Your task to perform on an android device: all mails in gmail Image 0: 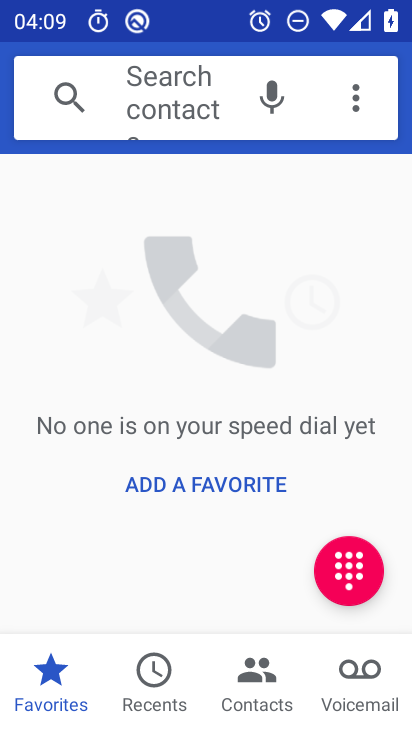
Step 0: press home button
Your task to perform on an android device: all mails in gmail Image 1: 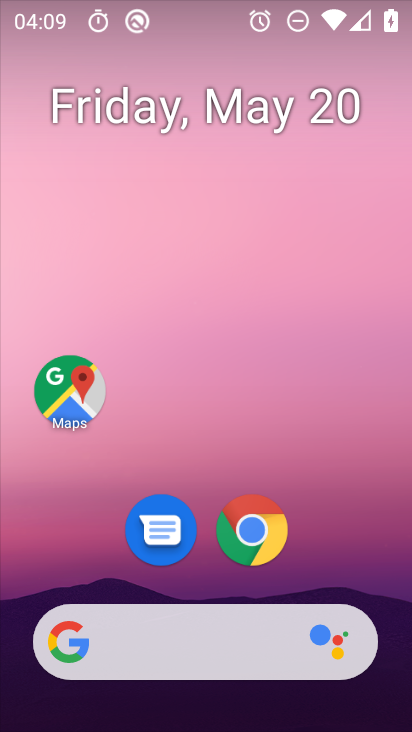
Step 1: click (363, 237)
Your task to perform on an android device: all mails in gmail Image 2: 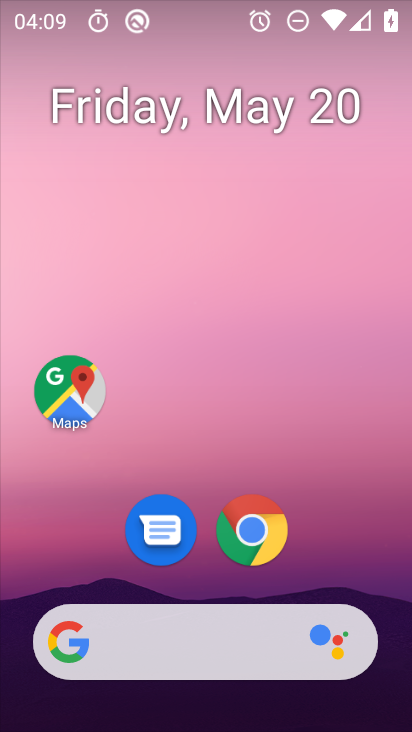
Step 2: drag from (391, 644) to (368, 290)
Your task to perform on an android device: all mails in gmail Image 3: 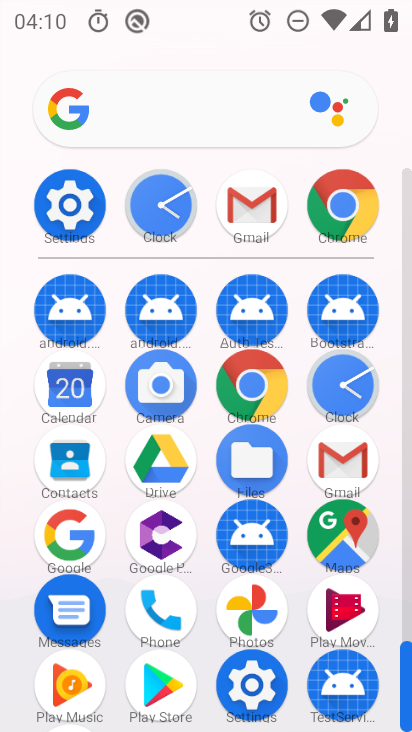
Step 3: click (334, 471)
Your task to perform on an android device: all mails in gmail Image 4: 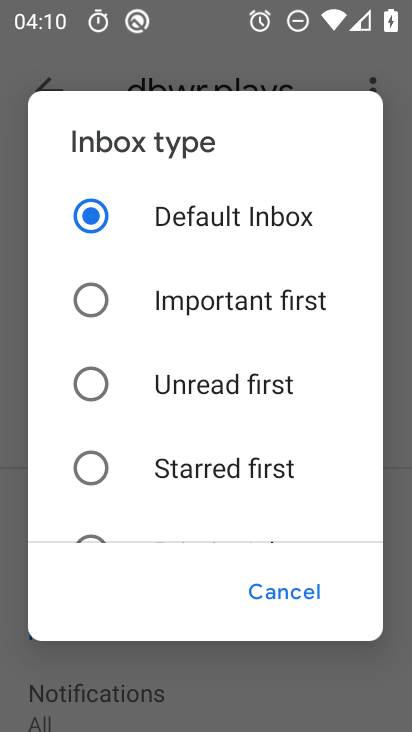
Step 4: drag from (128, 505) to (123, 252)
Your task to perform on an android device: all mails in gmail Image 5: 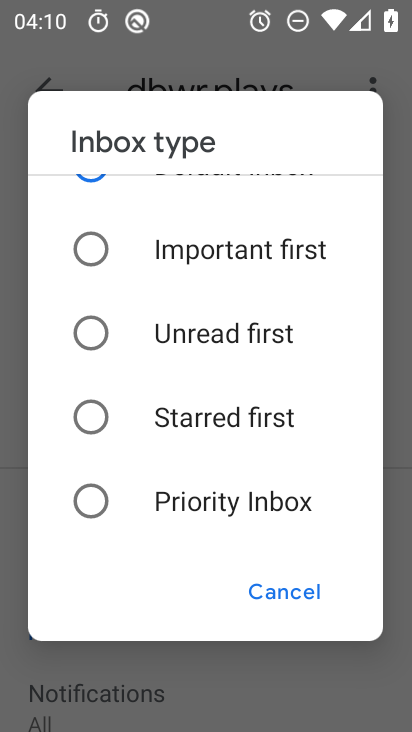
Step 5: press home button
Your task to perform on an android device: all mails in gmail Image 6: 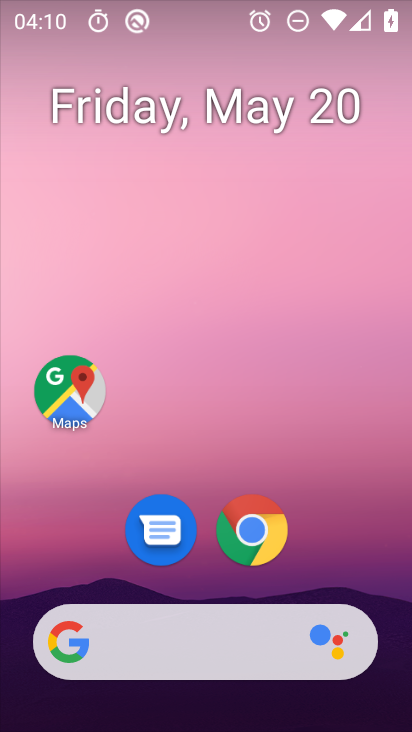
Step 6: drag from (387, 624) to (351, 378)
Your task to perform on an android device: all mails in gmail Image 7: 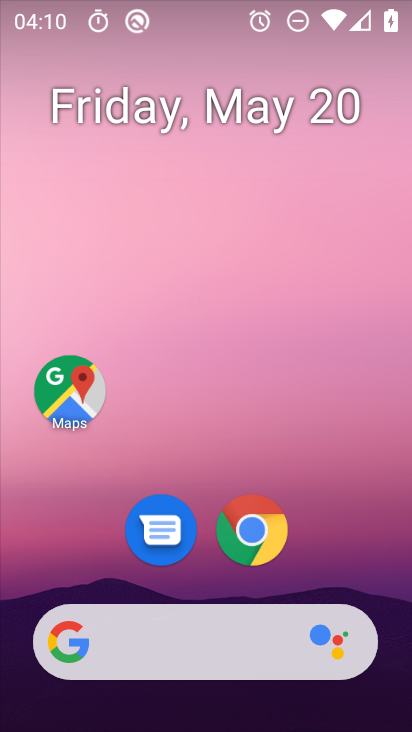
Step 7: drag from (395, 673) to (363, 272)
Your task to perform on an android device: all mails in gmail Image 8: 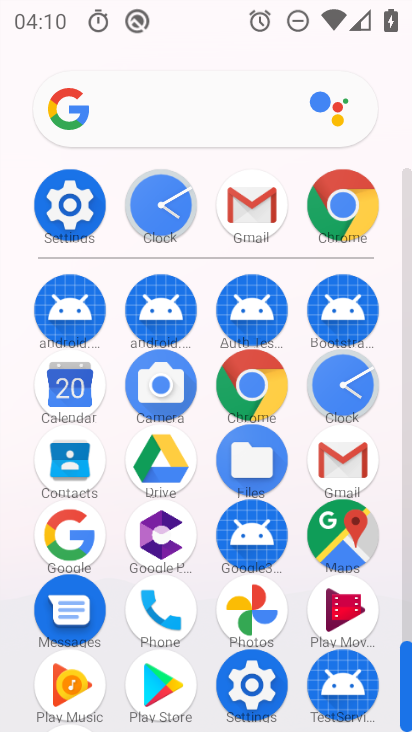
Step 8: click (350, 459)
Your task to perform on an android device: all mails in gmail Image 9: 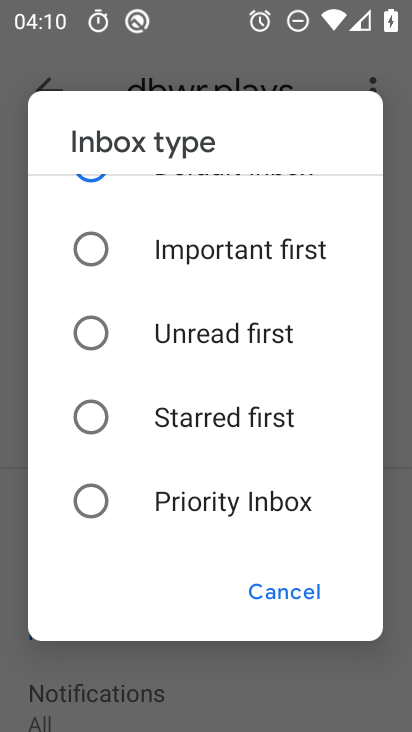
Step 9: press back button
Your task to perform on an android device: all mails in gmail Image 10: 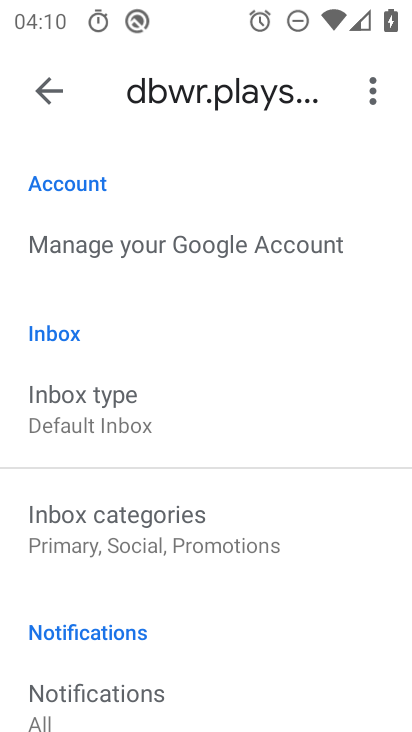
Step 10: click (56, 91)
Your task to perform on an android device: all mails in gmail Image 11: 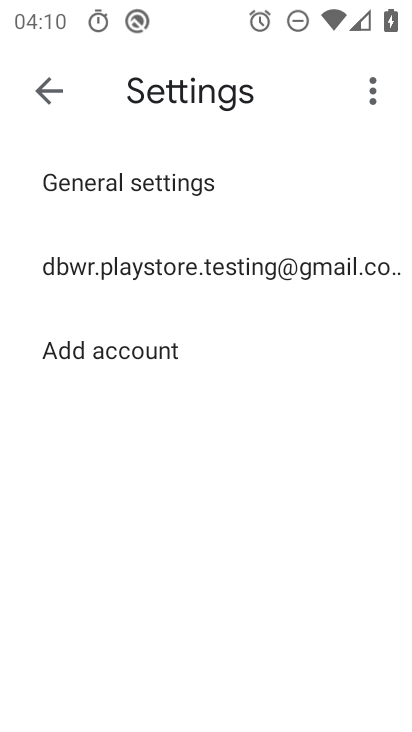
Step 11: click (55, 89)
Your task to perform on an android device: all mails in gmail Image 12: 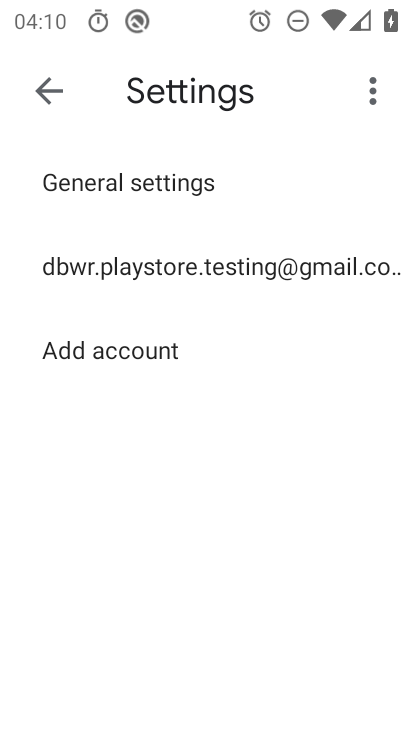
Step 12: click (39, 90)
Your task to perform on an android device: all mails in gmail Image 13: 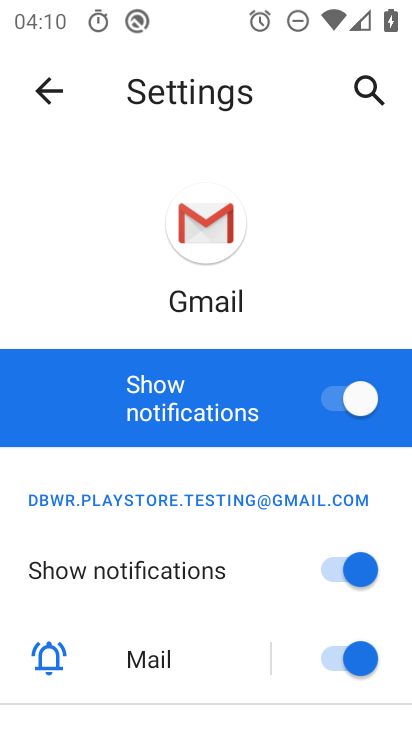
Step 13: drag from (210, 665) to (217, 327)
Your task to perform on an android device: all mails in gmail Image 14: 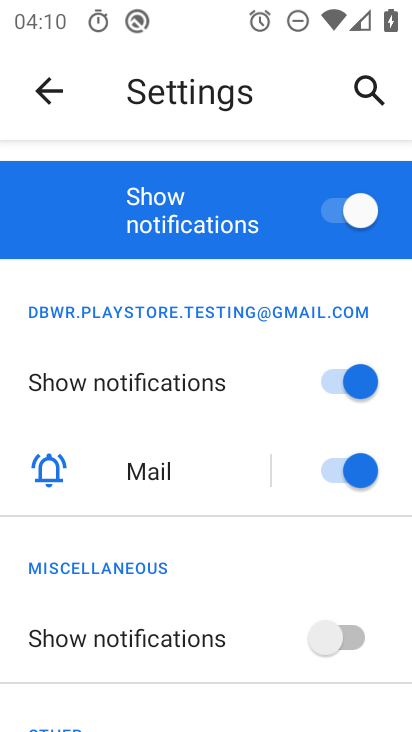
Step 14: drag from (231, 635) to (230, 383)
Your task to perform on an android device: all mails in gmail Image 15: 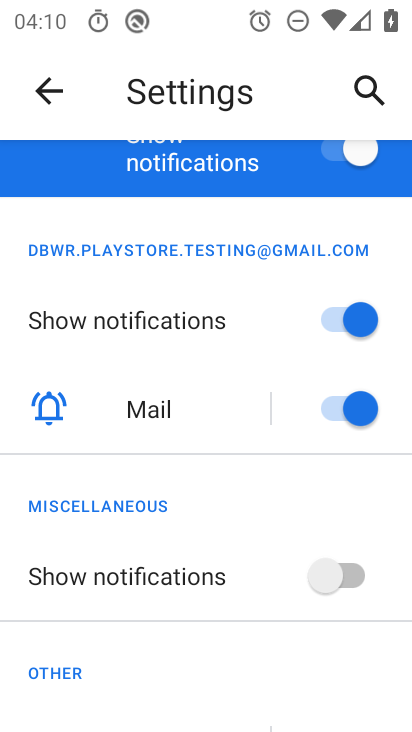
Step 15: drag from (180, 693) to (179, 417)
Your task to perform on an android device: all mails in gmail Image 16: 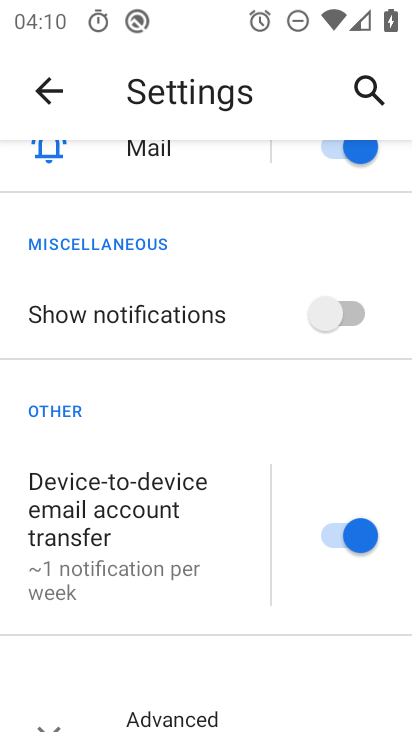
Step 16: drag from (200, 661) to (178, 435)
Your task to perform on an android device: all mails in gmail Image 17: 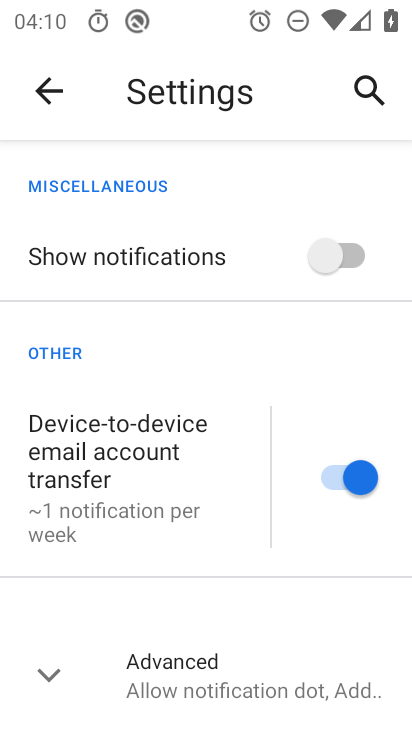
Step 17: drag from (194, 638) to (206, 340)
Your task to perform on an android device: all mails in gmail Image 18: 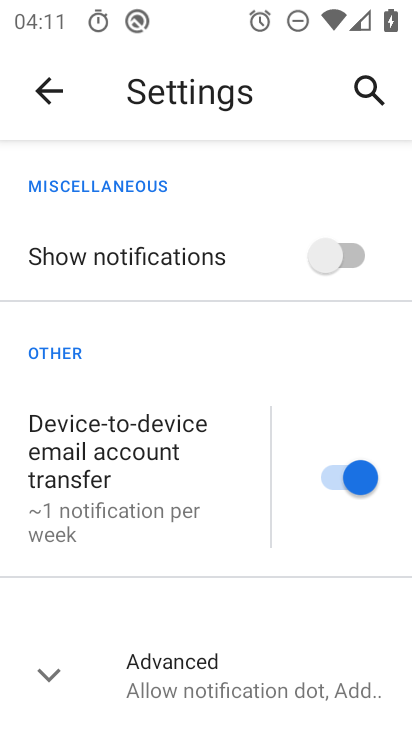
Step 18: click (41, 96)
Your task to perform on an android device: all mails in gmail Image 19: 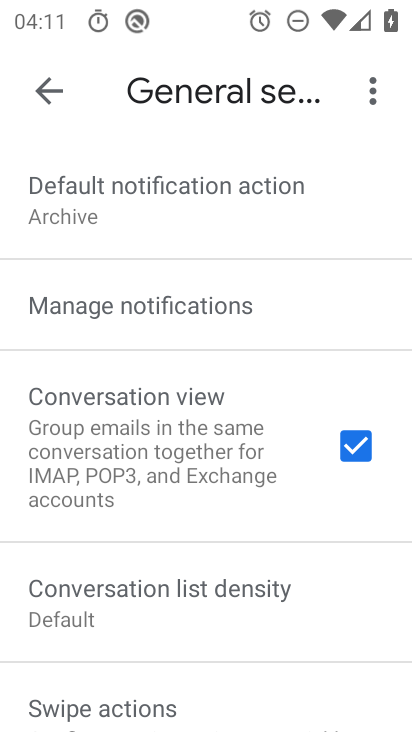
Step 19: drag from (207, 717) to (204, 374)
Your task to perform on an android device: all mails in gmail Image 20: 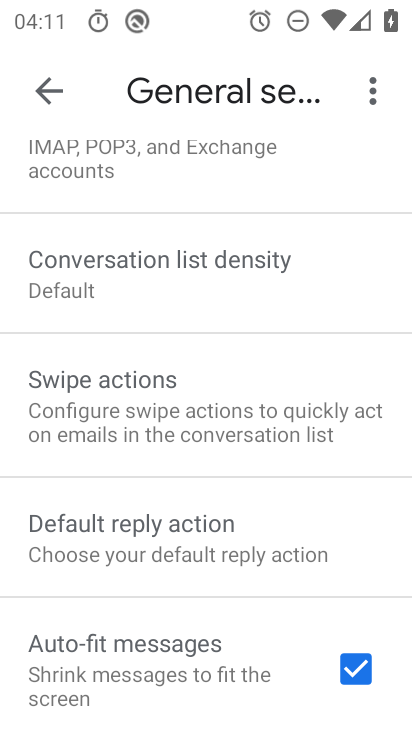
Step 20: click (53, 81)
Your task to perform on an android device: all mails in gmail Image 21: 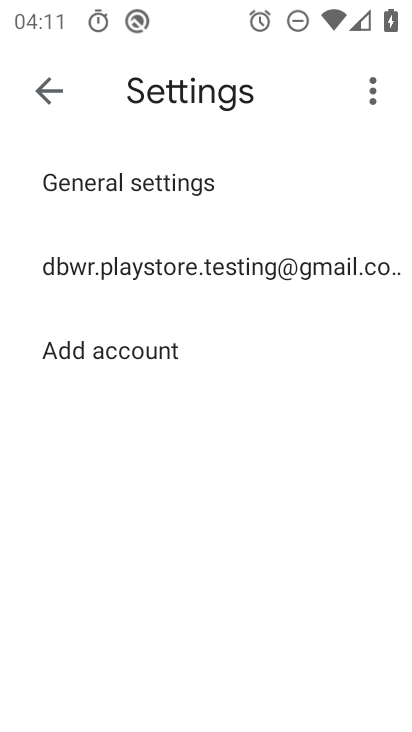
Step 21: click (51, 86)
Your task to perform on an android device: all mails in gmail Image 22: 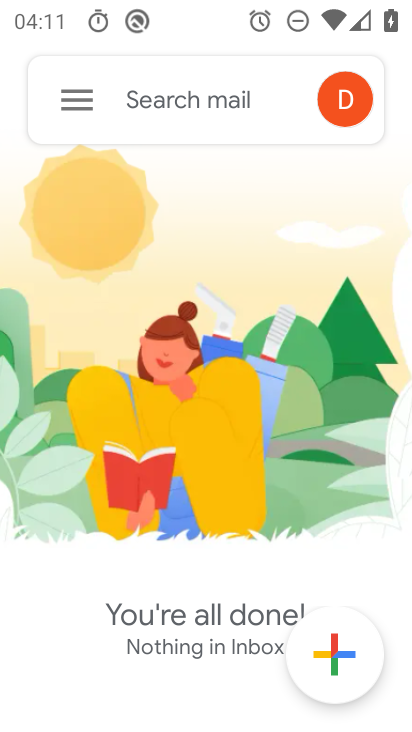
Step 22: click (72, 99)
Your task to perform on an android device: all mails in gmail Image 23: 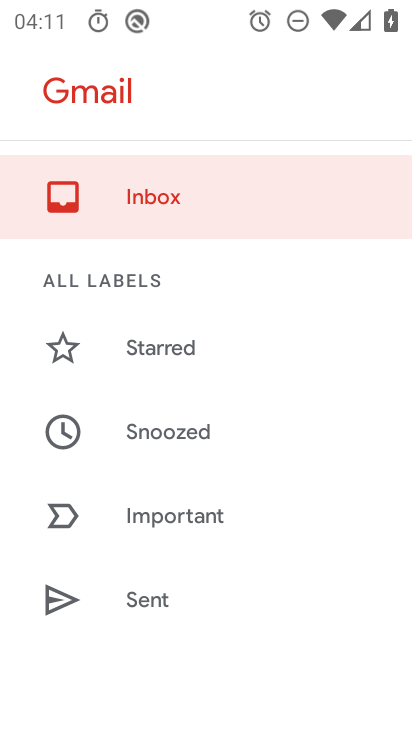
Step 23: drag from (256, 628) to (246, 220)
Your task to perform on an android device: all mails in gmail Image 24: 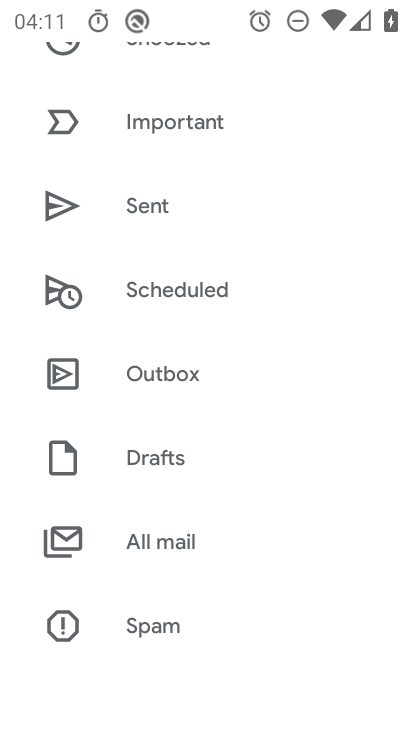
Step 24: click (145, 544)
Your task to perform on an android device: all mails in gmail Image 25: 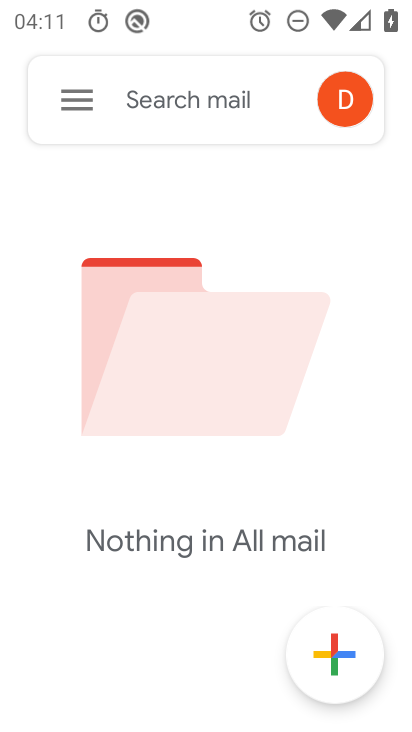
Step 25: task complete